Your task to perform on an android device: add a contact in the contacts app Image 0: 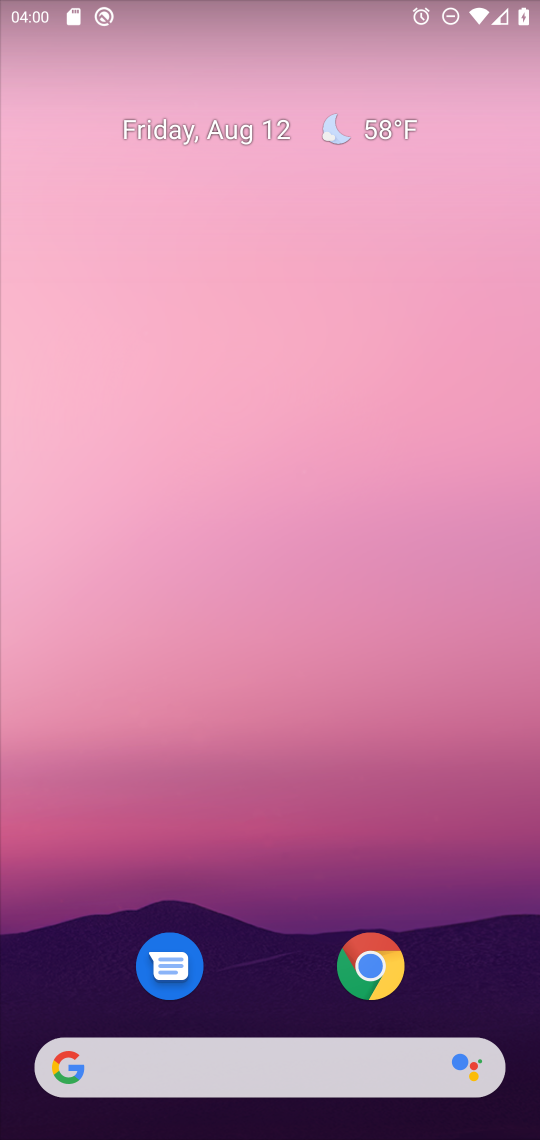
Step 0: drag from (230, 846) to (373, 21)
Your task to perform on an android device: add a contact in the contacts app Image 1: 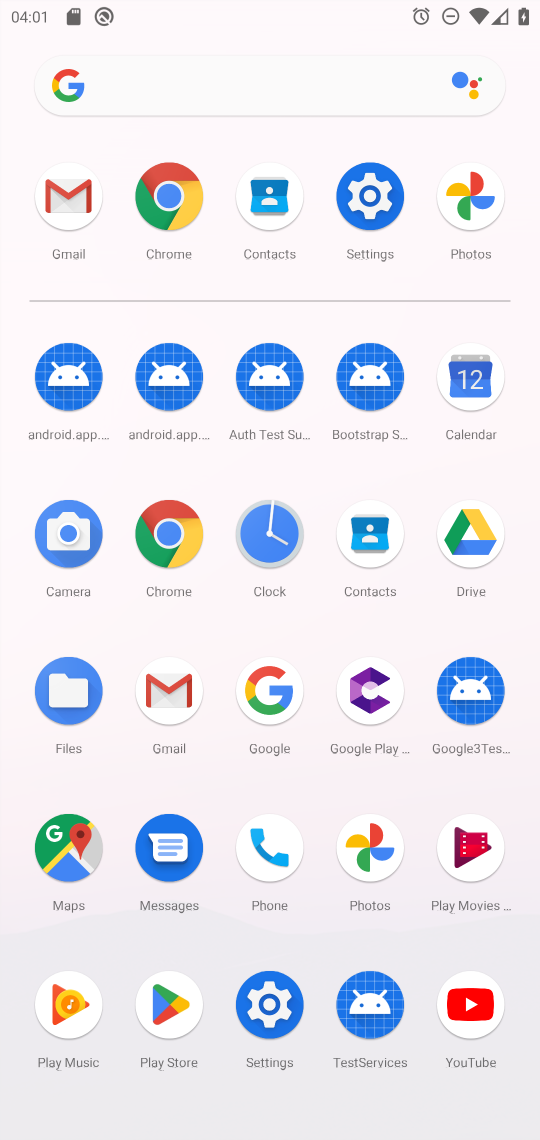
Step 1: click (383, 519)
Your task to perform on an android device: add a contact in the contacts app Image 2: 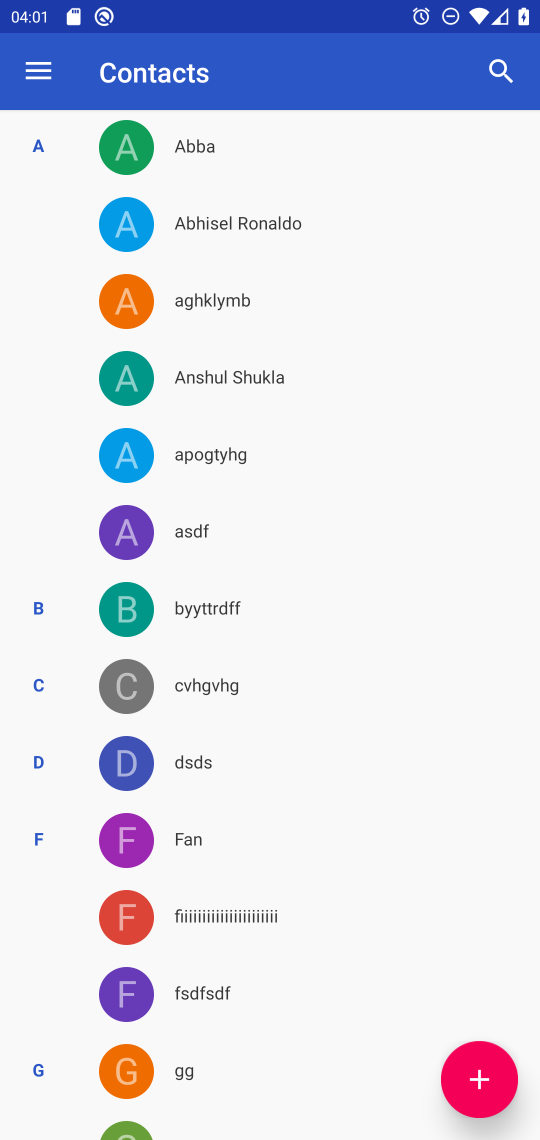
Step 2: click (483, 1079)
Your task to perform on an android device: add a contact in the contacts app Image 3: 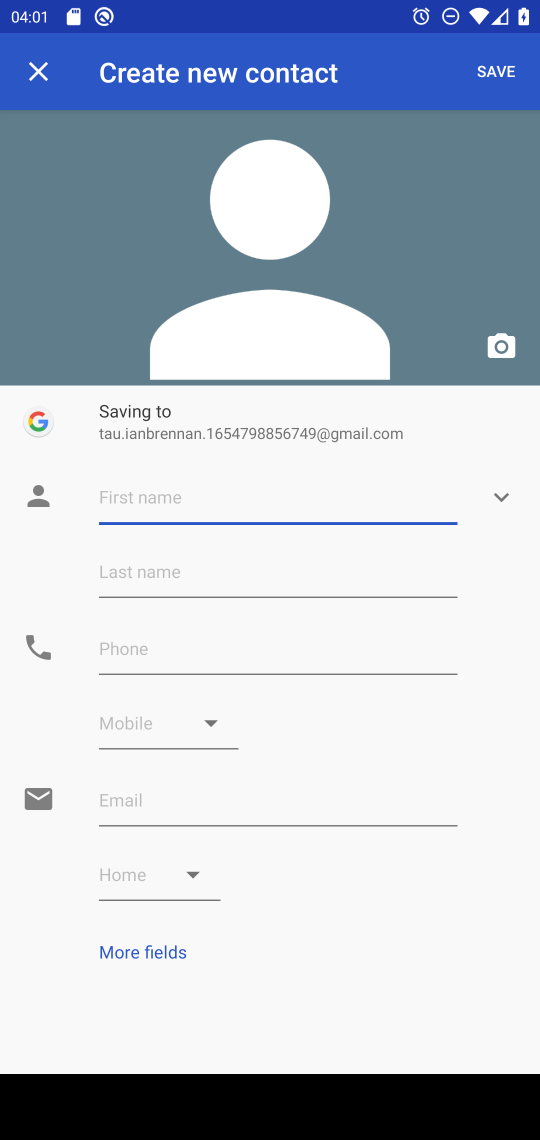
Step 3: type "poplop"
Your task to perform on an android device: add a contact in the contacts app Image 4: 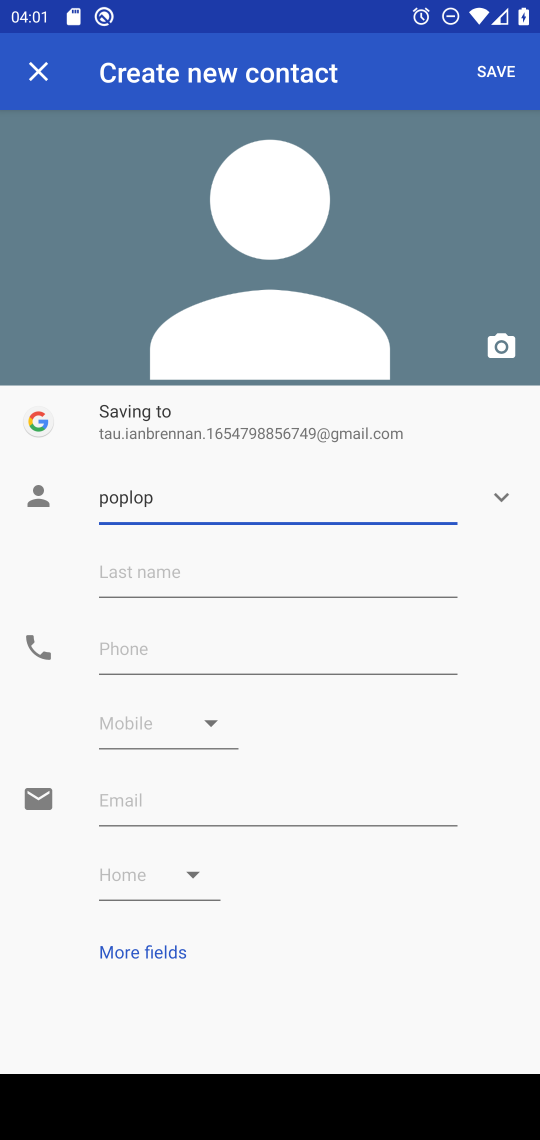
Step 4: click (512, 62)
Your task to perform on an android device: add a contact in the contacts app Image 5: 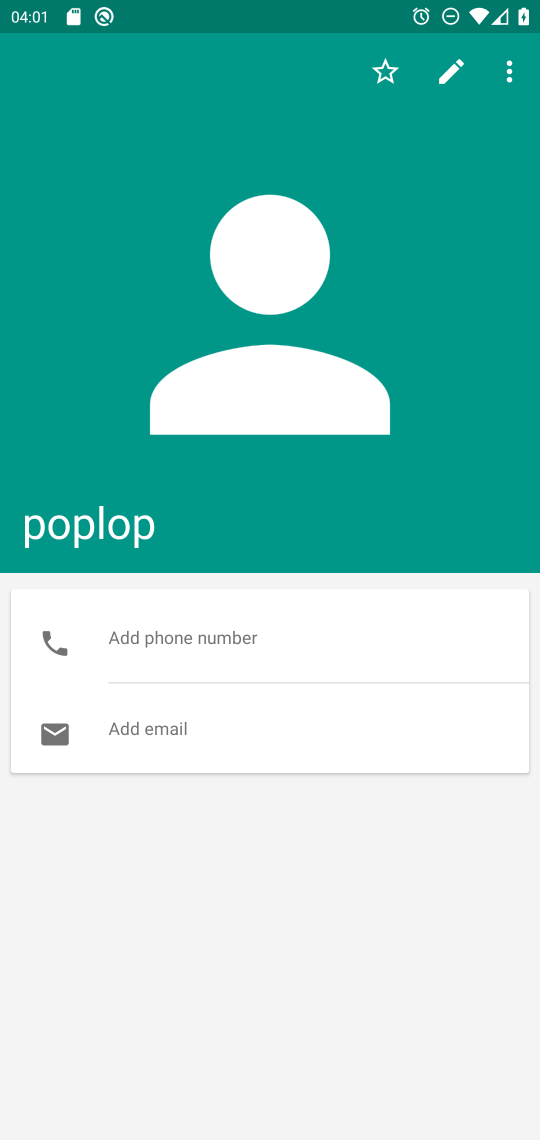
Step 5: task complete